Your task to perform on an android device: Go to internet settings Image 0: 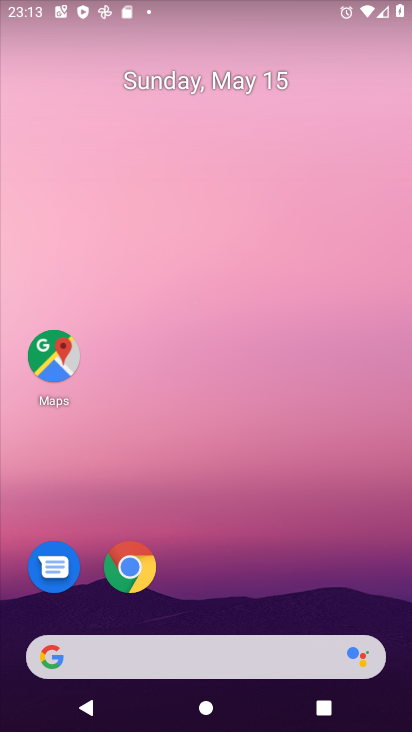
Step 0: drag from (281, 558) to (260, 10)
Your task to perform on an android device: Go to internet settings Image 1: 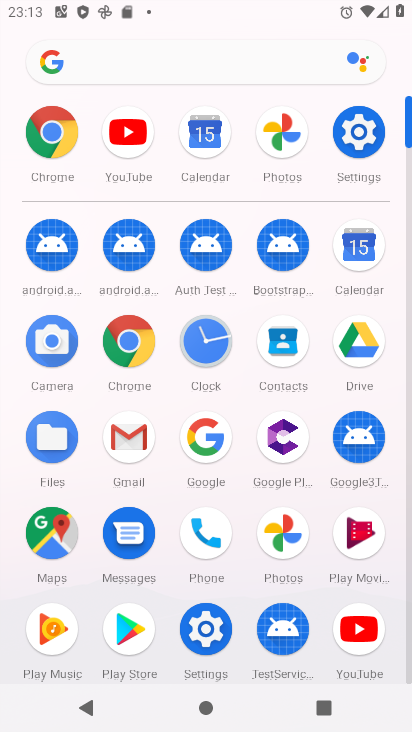
Step 1: click (346, 136)
Your task to perform on an android device: Go to internet settings Image 2: 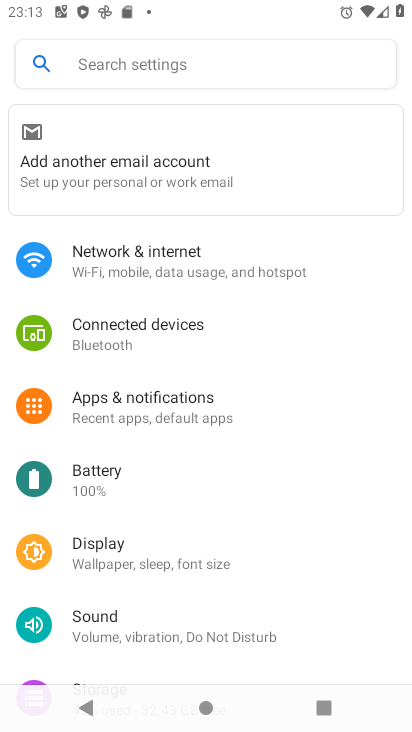
Step 2: click (224, 266)
Your task to perform on an android device: Go to internet settings Image 3: 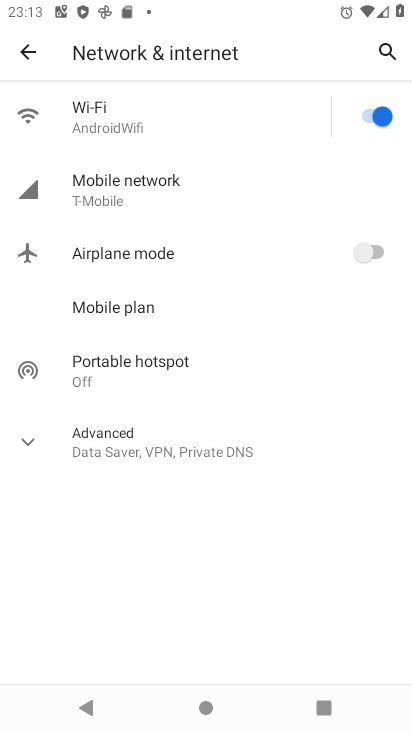
Step 3: task complete